Your task to perform on an android device: toggle improve location accuracy Image 0: 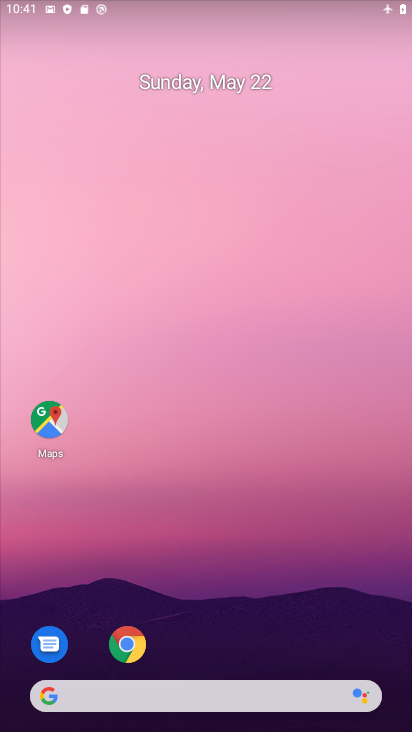
Step 0: press home button
Your task to perform on an android device: toggle improve location accuracy Image 1: 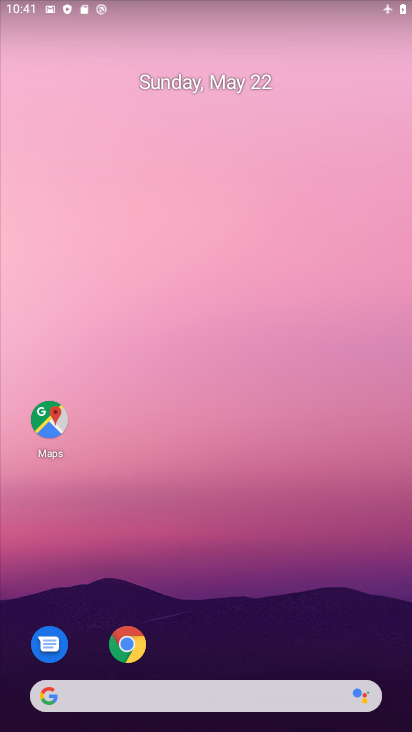
Step 1: drag from (228, 658) to (265, 183)
Your task to perform on an android device: toggle improve location accuracy Image 2: 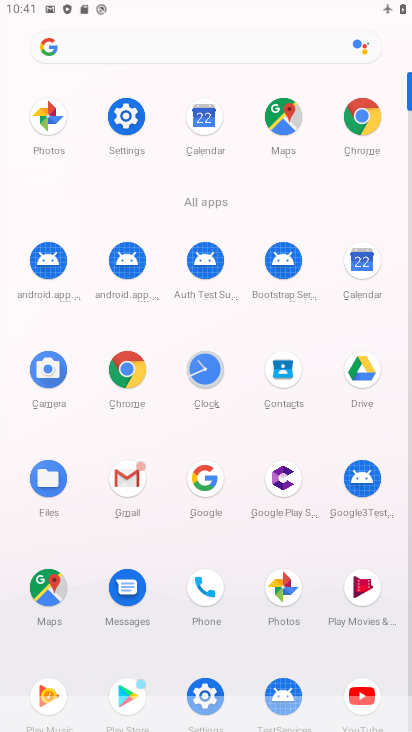
Step 2: click (126, 109)
Your task to perform on an android device: toggle improve location accuracy Image 3: 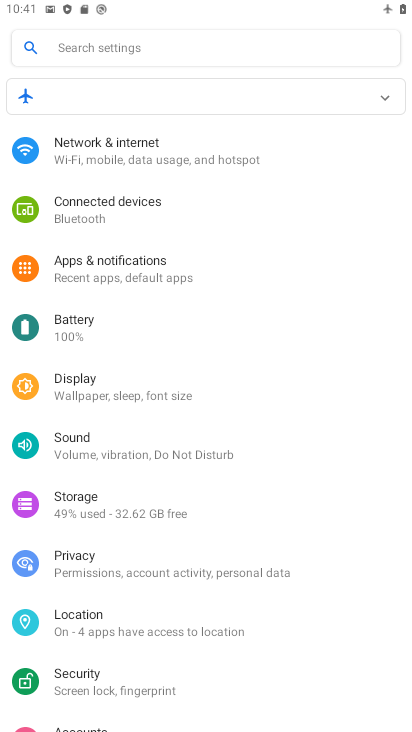
Step 3: click (112, 613)
Your task to perform on an android device: toggle improve location accuracy Image 4: 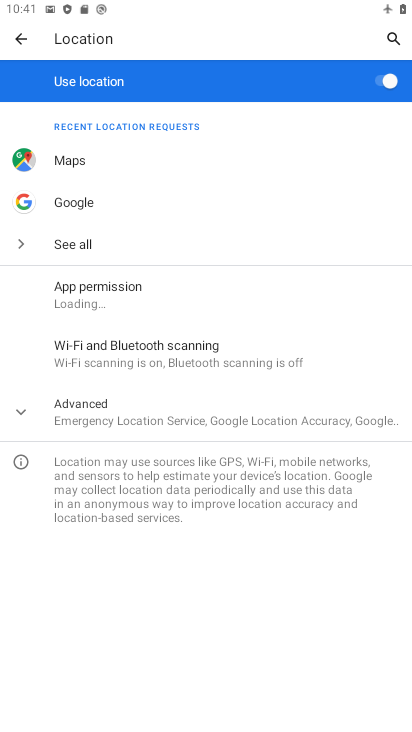
Step 4: click (17, 408)
Your task to perform on an android device: toggle improve location accuracy Image 5: 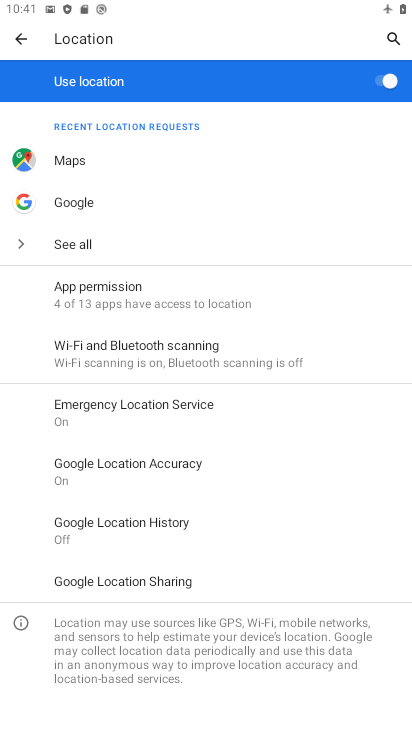
Step 5: click (124, 464)
Your task to perform on an android device: toggle improve location accuracy Image 6: 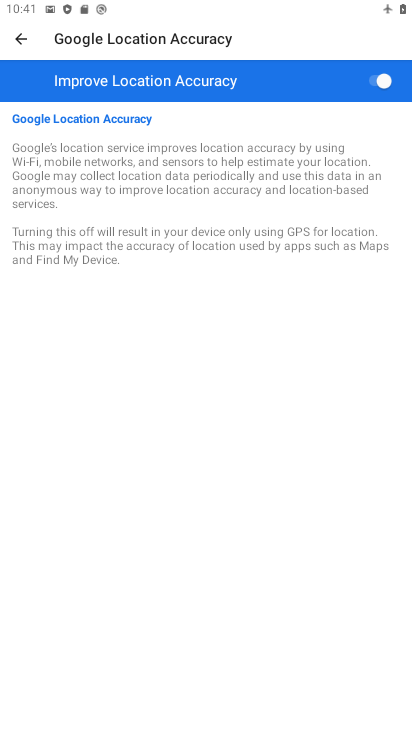
Step 6: click (381, 77)
Your task to perform on an android device: toggle improve location accuracy Image 7: 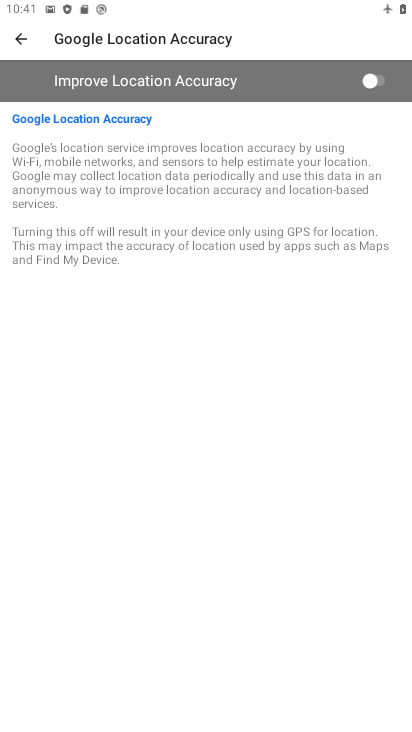
Step 7: task complete